Your task to perform on an android device: change notifications settings Image 0: 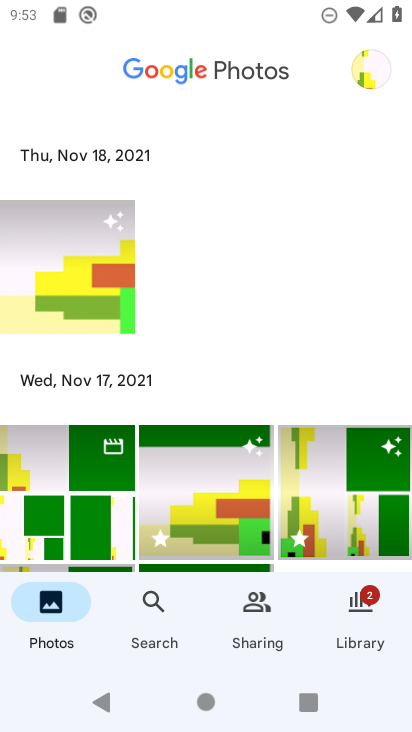
Step 0: press home button
Your task to perform on an android device: change notifications settings Image 1: 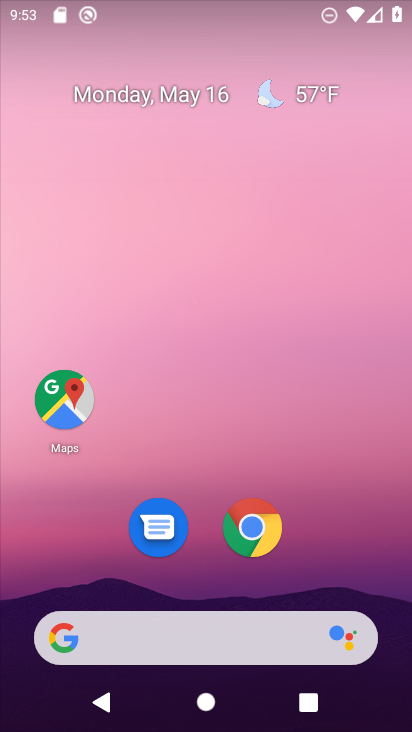
Step 1: drag from (371, 469) to (331, 263)
Your task to perform on an android device: change notifications settings Image 2: 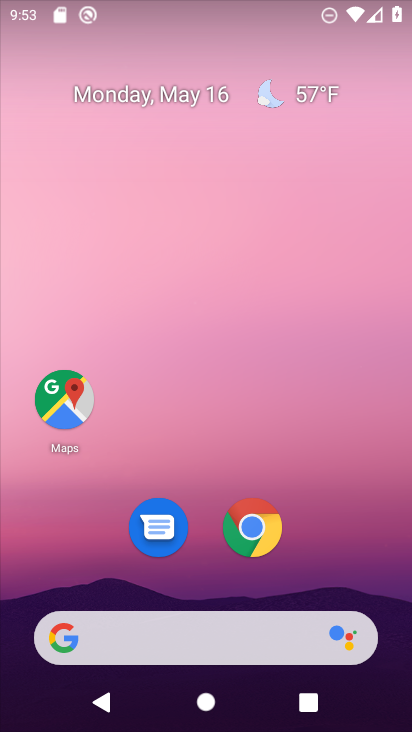
Step 2: drag from (393, 671) to (375, 296)
Your task to perform on an android device: change notifications settings Image 3: 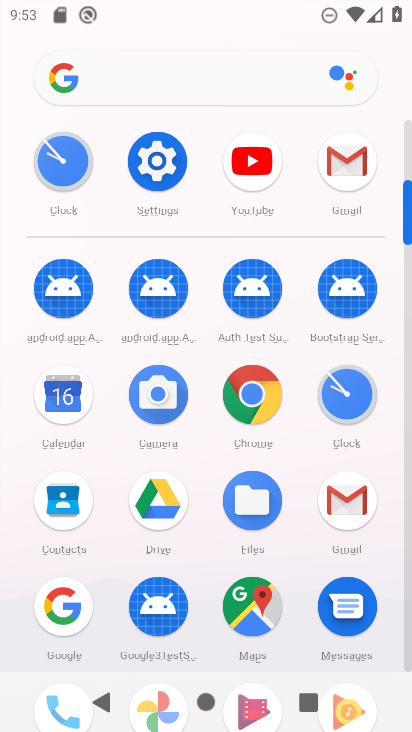
Step 3: click (168, 168)
Your task to perform on an android device: change notifications settings Image 4: 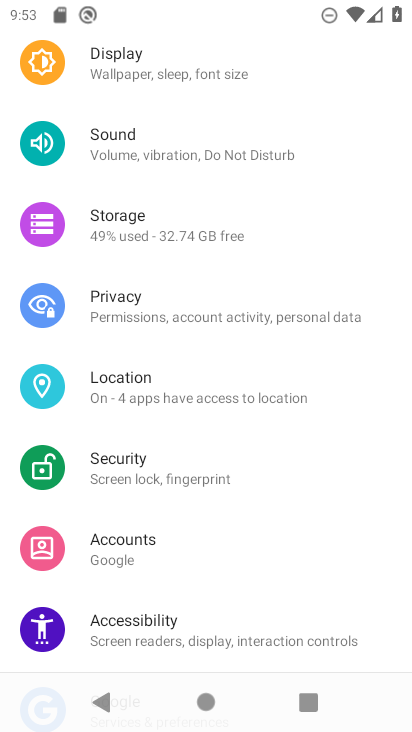
Step 4: drag from (300, 586) to (313, 385)
Your task to perform on an android device: change notifications settings Image 5: 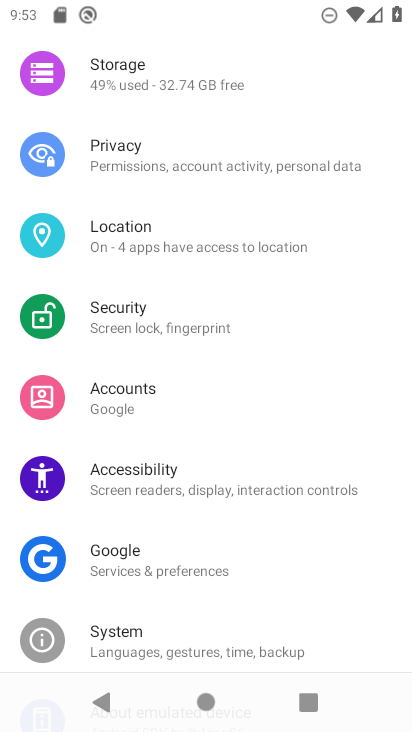
Step 5: drag from (375, 110) to (388, 377)
Your task to perform on an android device: change notifications settings Image 6: 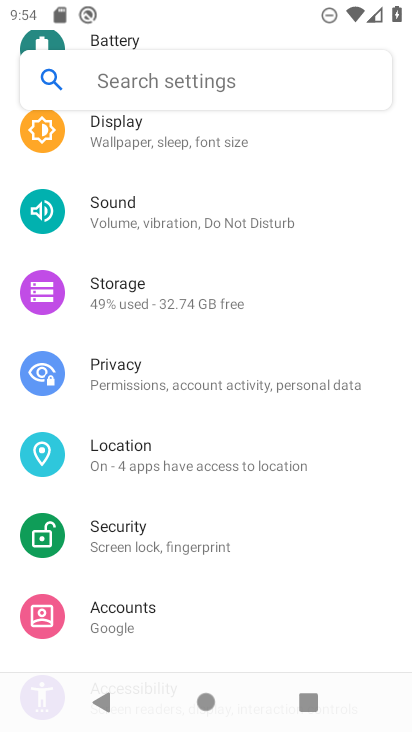
Step 6: drag from (370, 339) to (376, 406)
Your task to perform on an android device: change notifications settings Image 7: 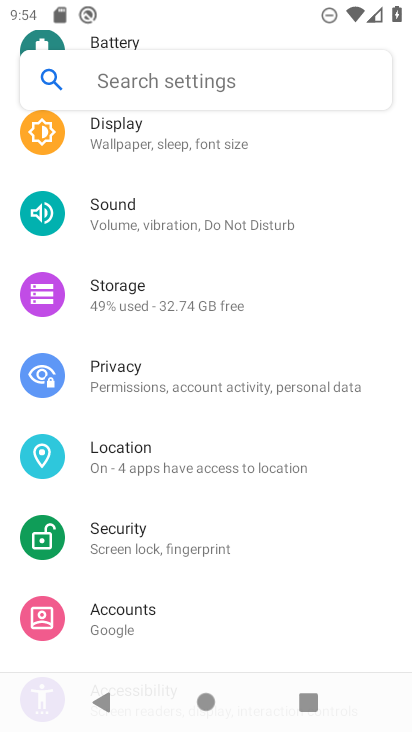
Step 7: drag from (357, 156) to (385, 415)
Your task to perform on an android device: change notifications settings Image 8: 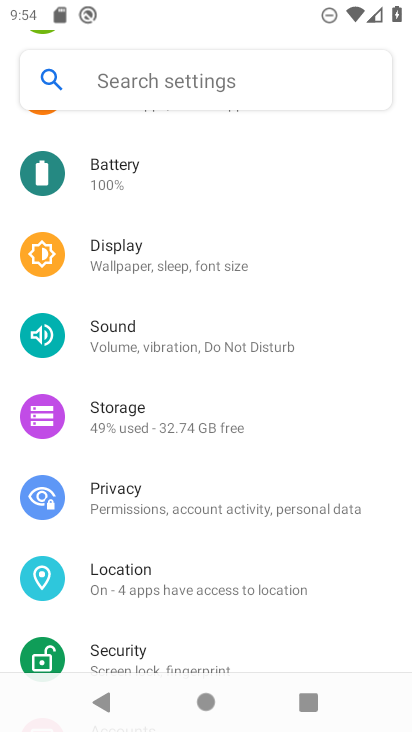
Step 8: drag from (359, 154) to (360, 525)
Your task to perform on an android device: change notifications settings Image 9: 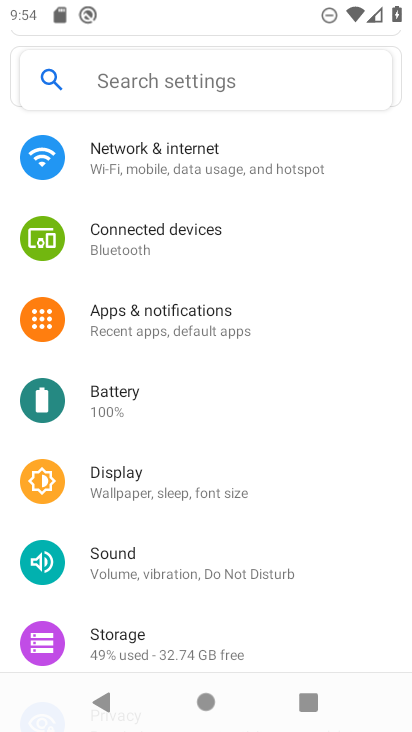
Step 9: click (136, 322)
Your task to perform on an android device: change notifications settings Image 10: 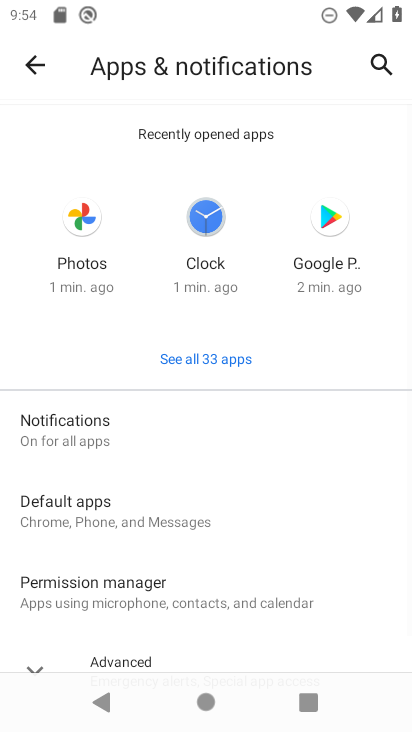
Step 10: click (74, 427)
Your task to perform on an android device: change notifications settings Image 11: 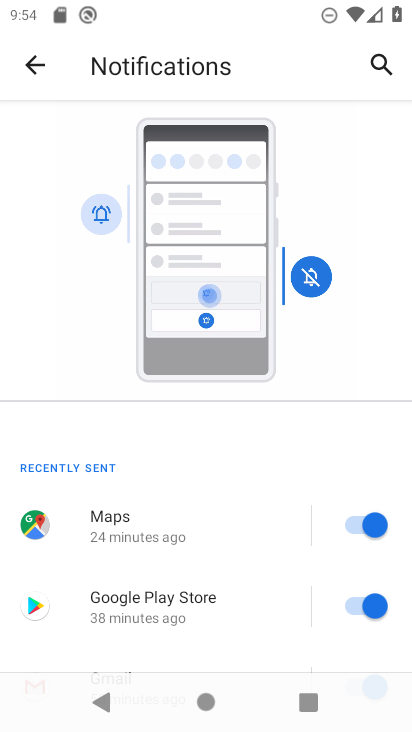
Step 11: drag from (272, 630) to (264, 364)
Your task to perform on an android device: change notifications settings Image 12: 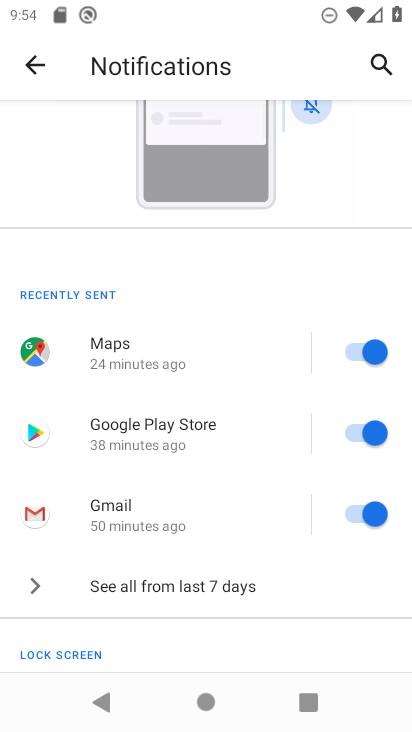
Step 12: click (263, 312)
Your task to perform on an android device: change notifications settings Image 13: 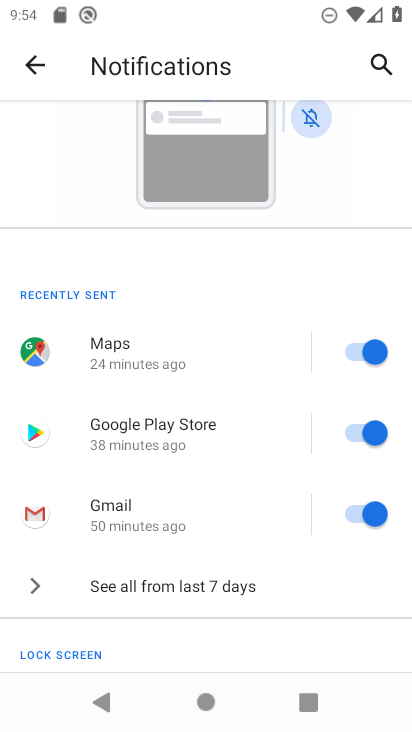
Step 13: drag from (266, 605) to (270, 420)
Your task to perform on an android device: change notifications settings Image 14: 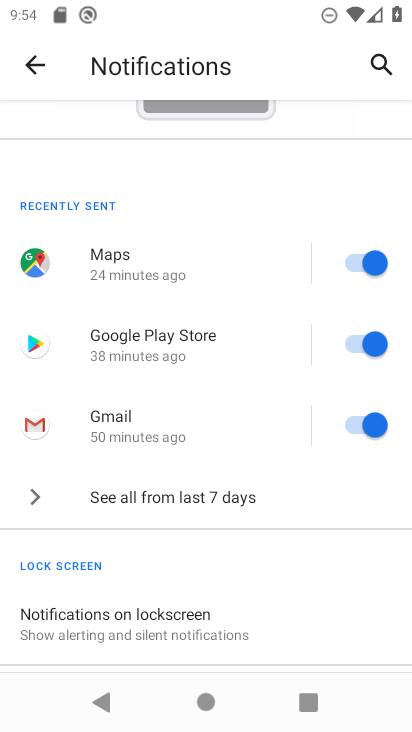
Step 14: drag from (281, 625) to (292, 420)
Your task to perform on an android device: change notifications settings Image 15: 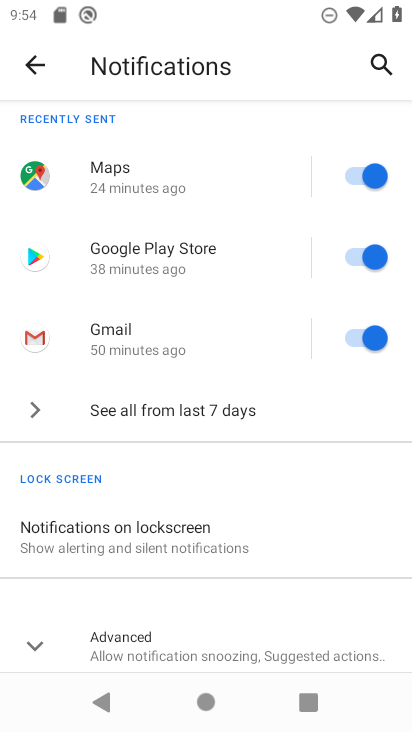
Step 15: drag from (280, 598) to (291, 428)
Your task to perform on an android device: change notifications settings Image 16: 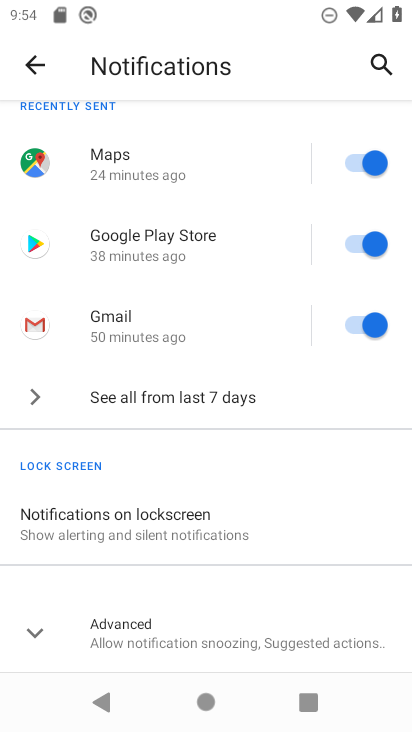
Step 16: drag from (280, 215) to (279, 477)
Your task to perform on an android device: change notifications settings Image 17: 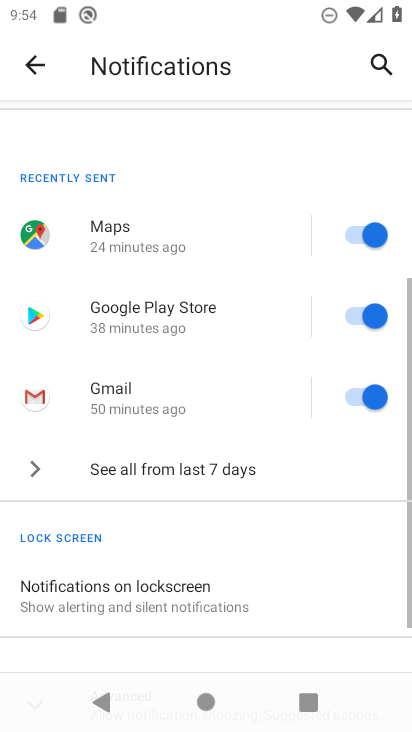
Step 17: click (347, 227)
Your task to perform on an android device: change notifications settings Image 18: 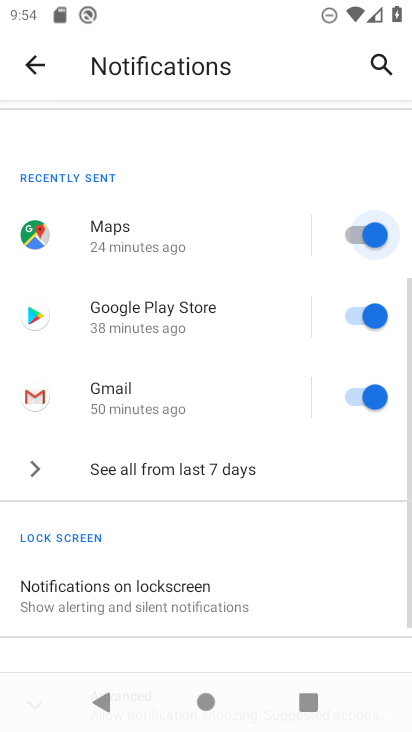
Step 18: click (358, 316)
Your task to perform on an android device: change notifications settings Image 19: 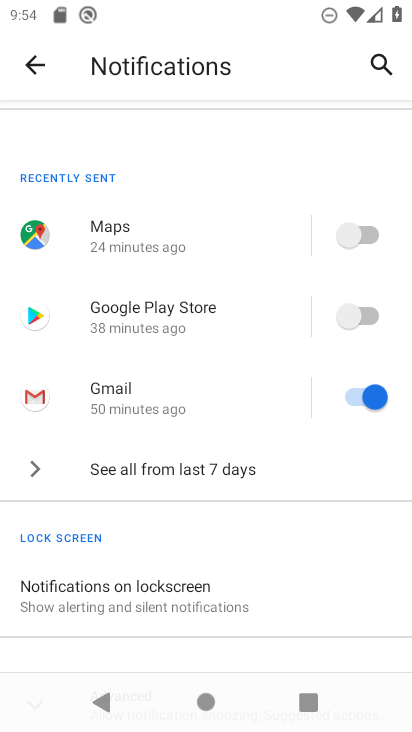
Step 19: click (354, 391)
Your task to perform on an android device: change notifications settings Image 20: 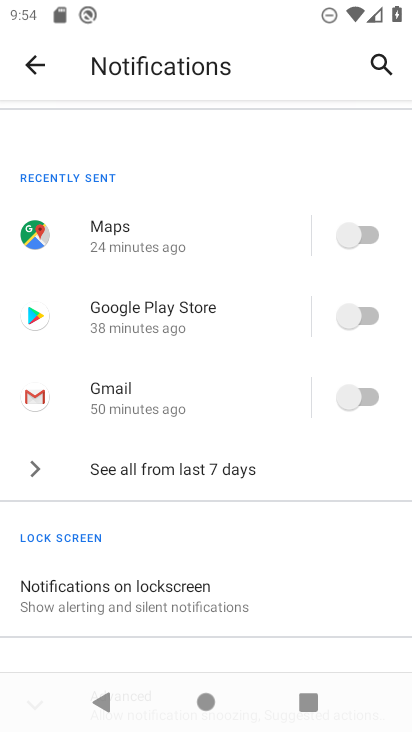
Step 20: task complete